Your task to perform on an android device: toggle javascript in the chrome app Image 0: 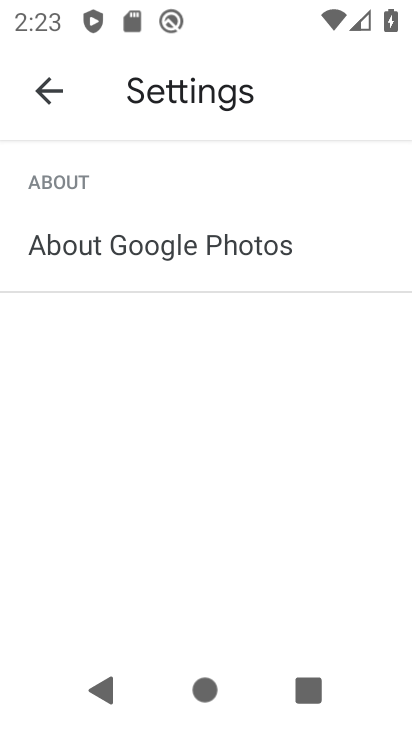
Step 0: press home button
Your task to perform on an android device: toggle javascript in the chrome app Image 1: 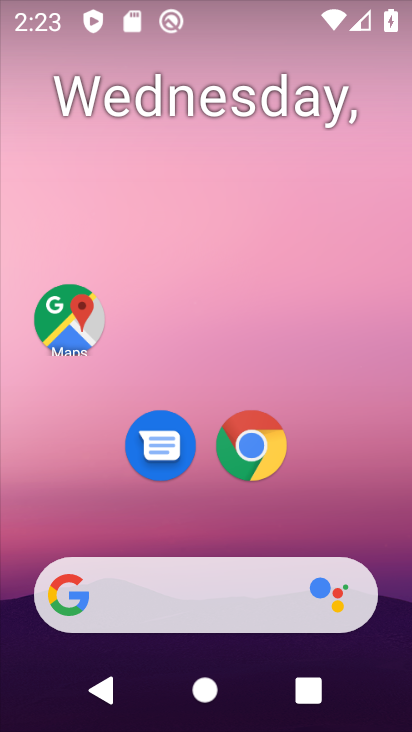
Step 1: click (247, 451)
Your task to perform on an android device: toggle javascript in the chrome app Image 2: 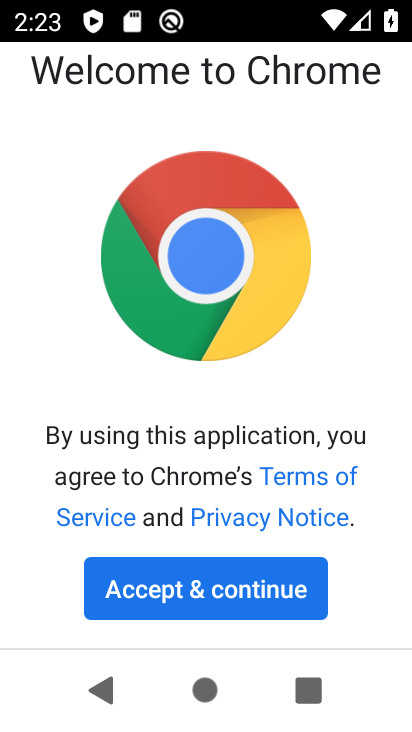
Step 2: click (191, 597)
Your task to perform on an android device: toggle javascript in the chrome app Image 3: 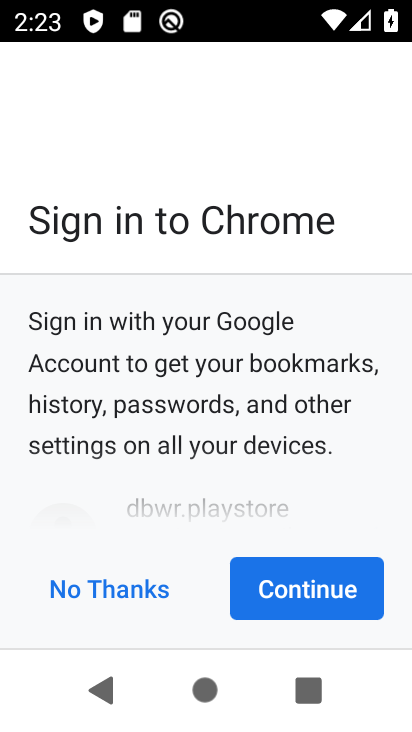
Step 3: click (289, 593)
Your task to perform on an android device: toggle javascript in the chrome app Image 4: 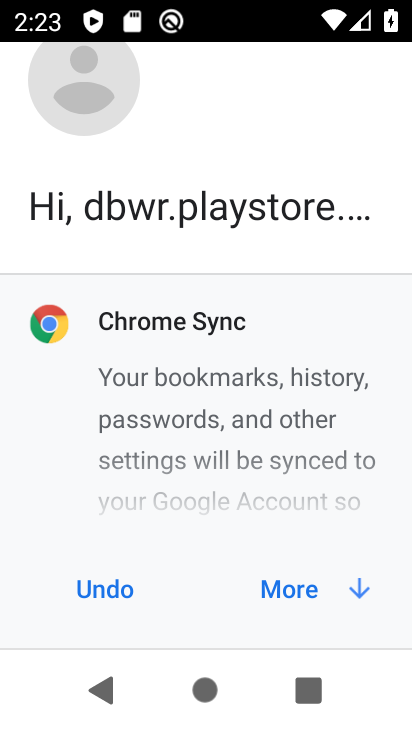
Step 4: click (289, 593)
Your task to perform on an android device: toggle javascript in the chrome app Image 5: 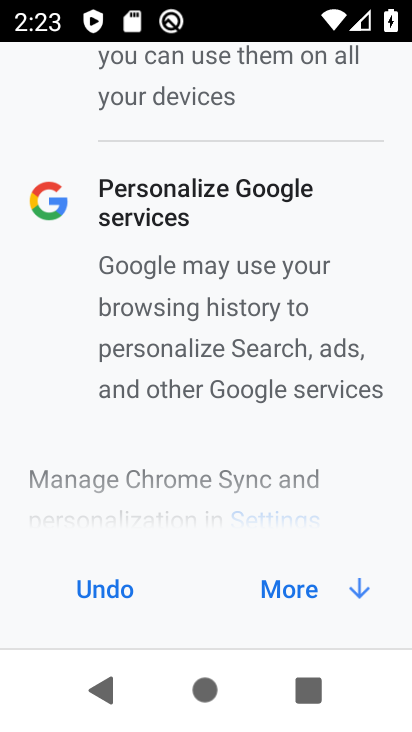
Step 5: click (283, 593)
Your task to perform on an android device: toggle javascript in the chrome app Image 6: 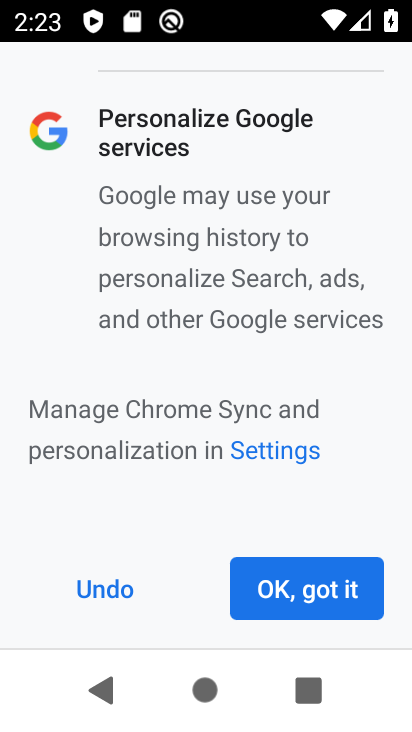
Step 6: click (283, 593)
Your task to perform on an android device: toggle javascript in the chrome app Image 7: 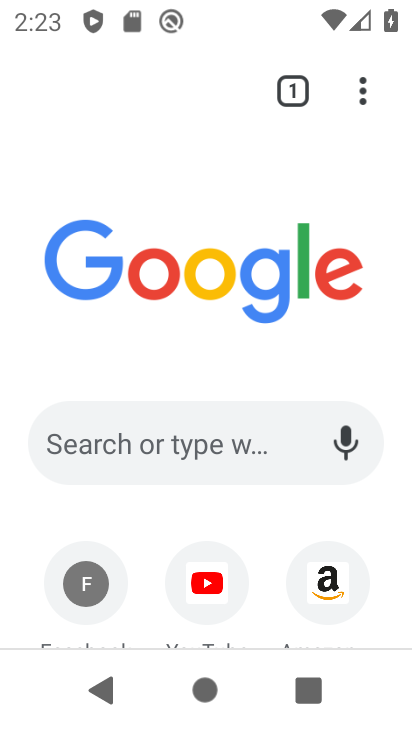
Step 7: click (361, 93)
Your task to perform on an android device: toggle javascript in the chrome app Image 8: 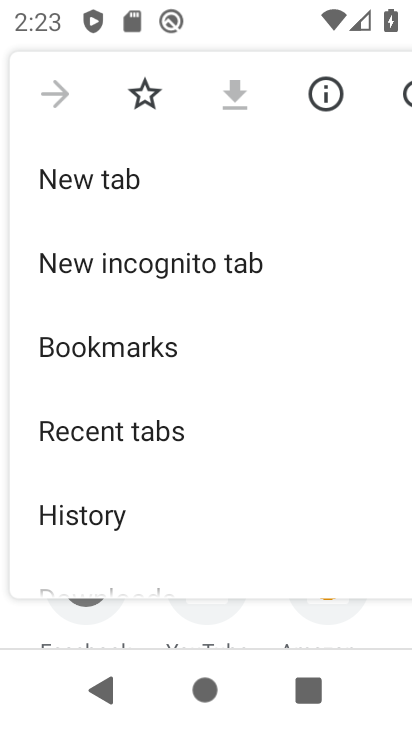
Step 8: drag from (179, 376) to (190, 129)
Your task to perform on an android device: toggle javascript in the chrome app Image 9: 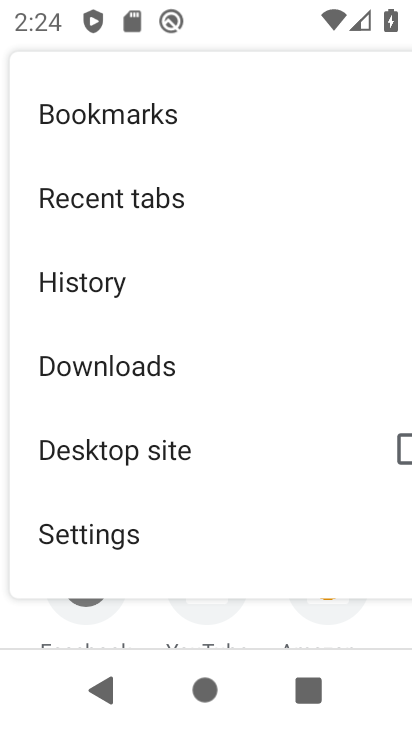
Step 9: click (122, 535)
Your task to perform on an android device: toggle javascript in the chrome app Image 10: 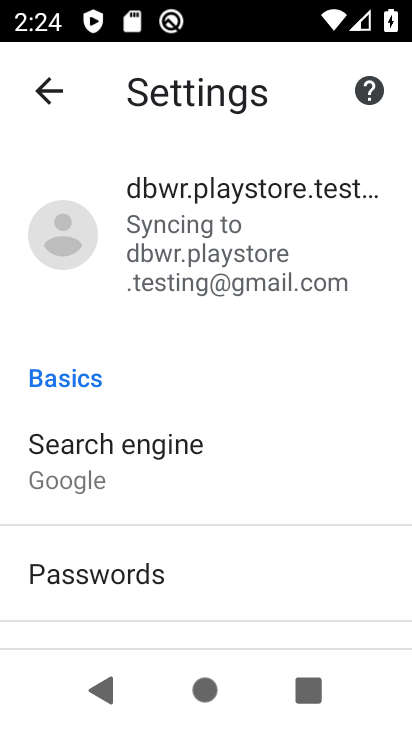
Step 10: drag from (148, 574) to (223, 216)
Your task to perform on an android device: toggle javascript in the chrome app Image 11: 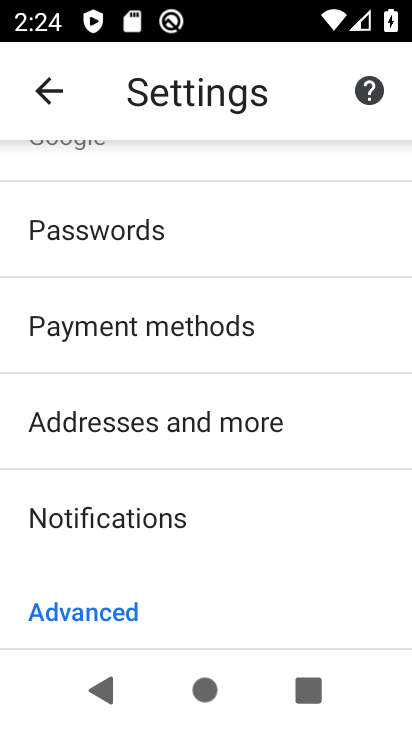
Step 11: drag from (184, 555) to (246, 273)
Your task to perform on an android device: toggle javascript in the chrome app Image 12: 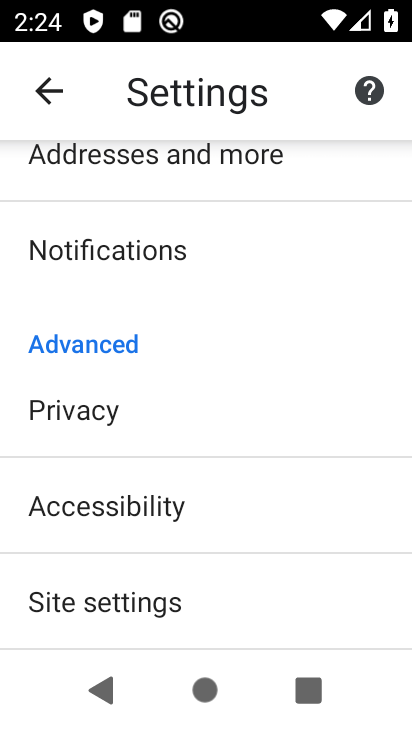
Step 12: click (122, 598)
Your task to perform on an android device: toggle javascript in the chrome app Image 13: 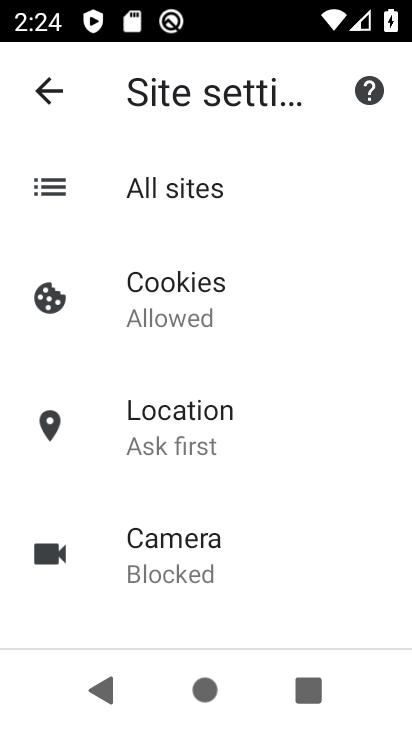
Step 13: drag from (214, 465) to (264, 229)
Your task to perform on an android device: toggle javascript in the chrome app Image 14: 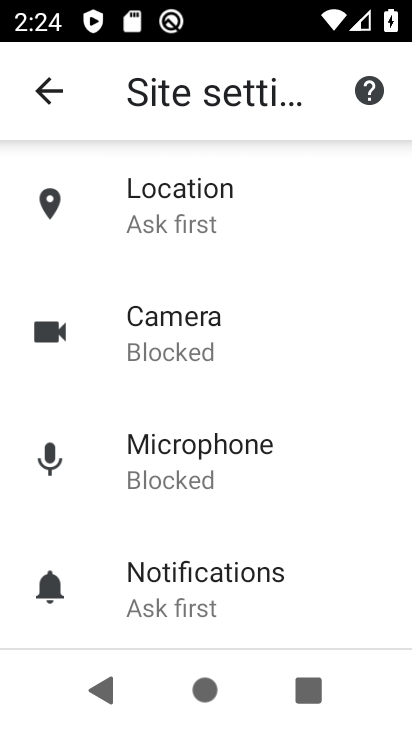
Step 14: drag from (211, 506) to (258, 195)
Your task to perform on an android device: toggle javascript in the chrome app Image 15: 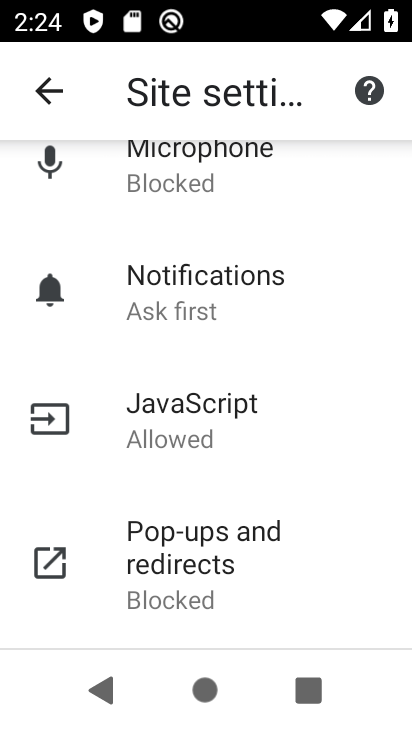
Step 15: click (225, 420)
Your task to perform on an android device: toggle javascript in the chrome app Image 16: 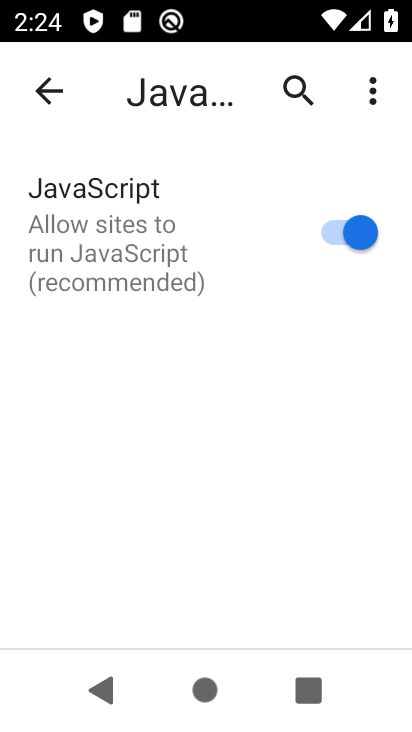
Step 16: click (330, 232)
Your task to perform on an android device: toggle javascript in the chrome app Image 17: 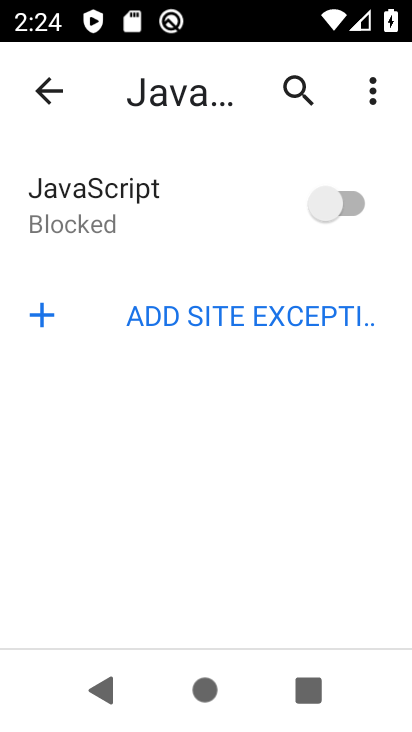
Step 17: task complete